Your task to perform on an android device: toggle wifi Image 0: 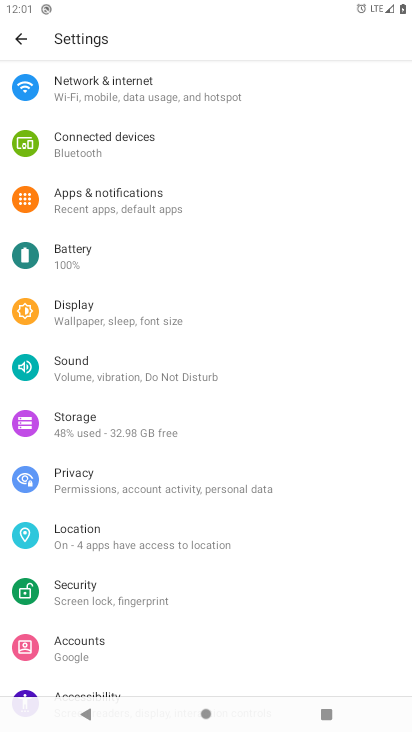
Step 0: drag from (244, 99) to (248, 715)
Your task to perform on an android device: toggle wifi Image 1: 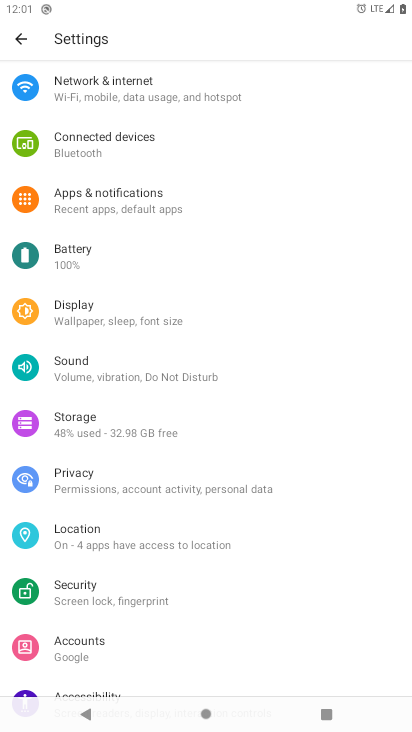
Step 1: click (96, 83)
Your task to perform on an android device: toggle wifi Image 2: 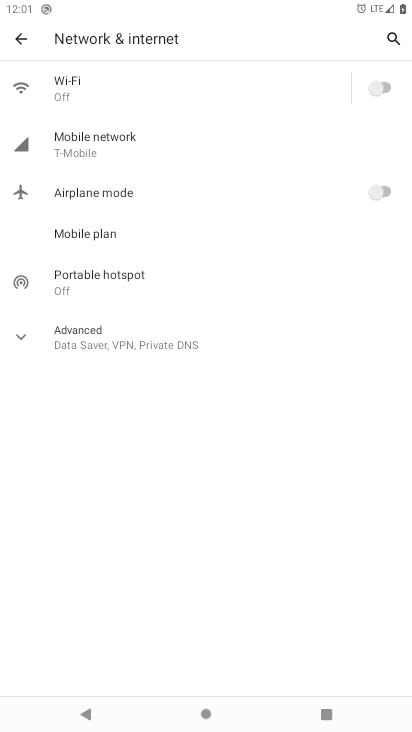
Step 2: click (154, 99)
Your task to perform on an android device: toggle wifi Image 3: 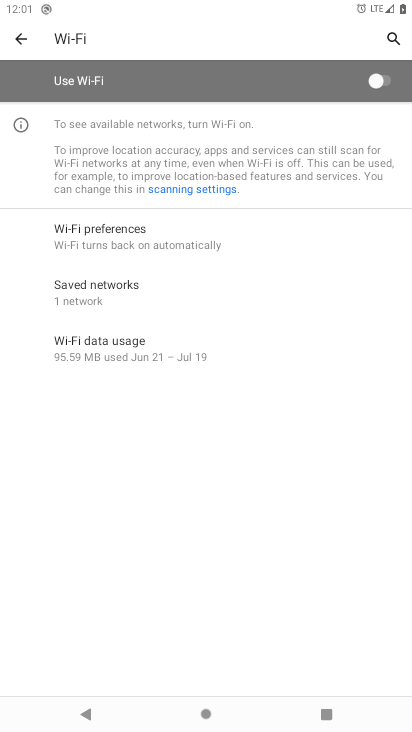
Step 3: click (373, 73)
Your task to perform on an android device: toggle wifi Image 4: 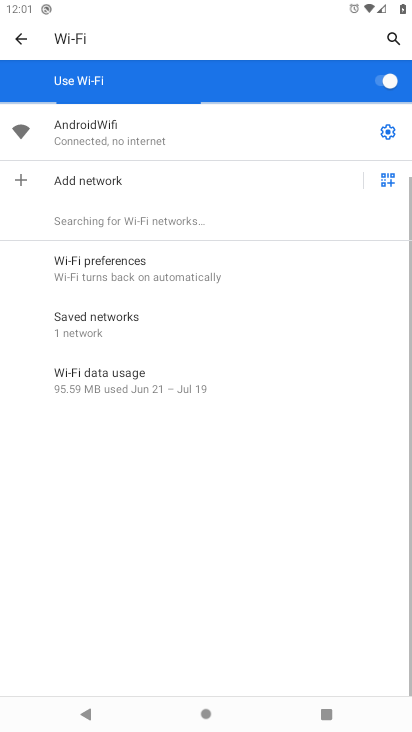
Step 4: task complete